Your task to perform on an android device: turn off location history Image 0: 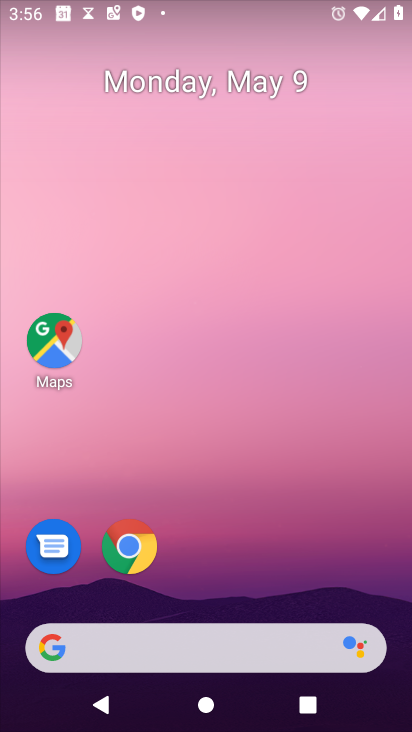
Step 0: drag from (309, 542) to (265, 93)
Your task to perform on an android device: turn off location history Image 1: 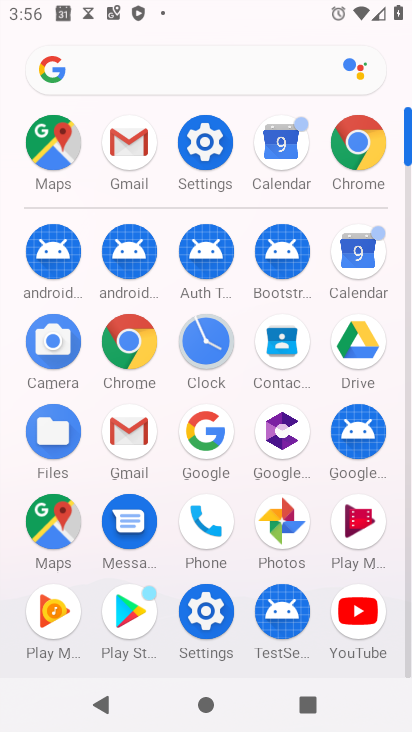
Step 1: click (192, 149)
Your task to perform on an android device: turn off location history Image 2: 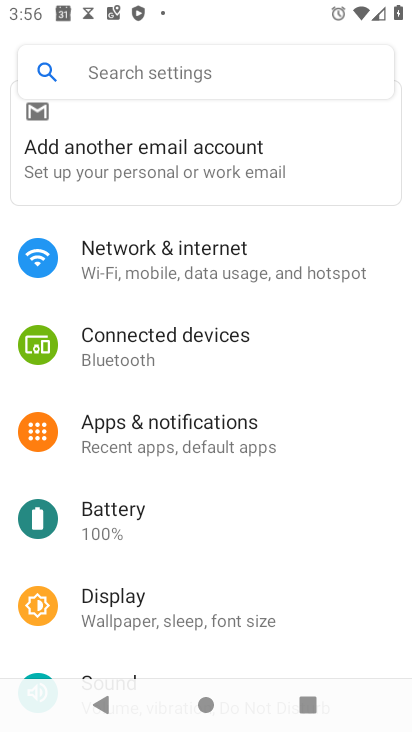
Step 2: drag from (173, 602) to (117, 252)
Your task to perform on an android device: turn off location history Image 3: 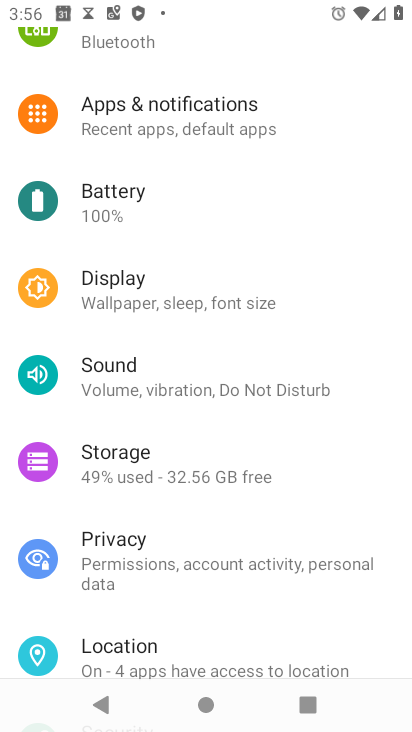
Step 3: drag from (233, 584) to (186, 289)
Your task to perform on an android device: turn off location history Image 4: 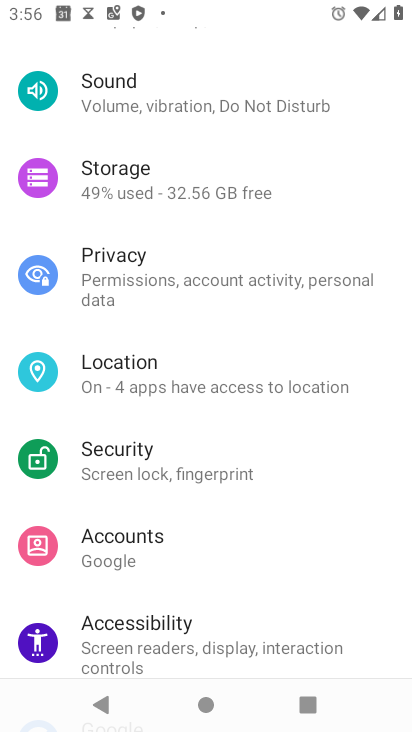
Step 4: click (117, 360)
Your task to perform on an android device: turn off location history Image 5: 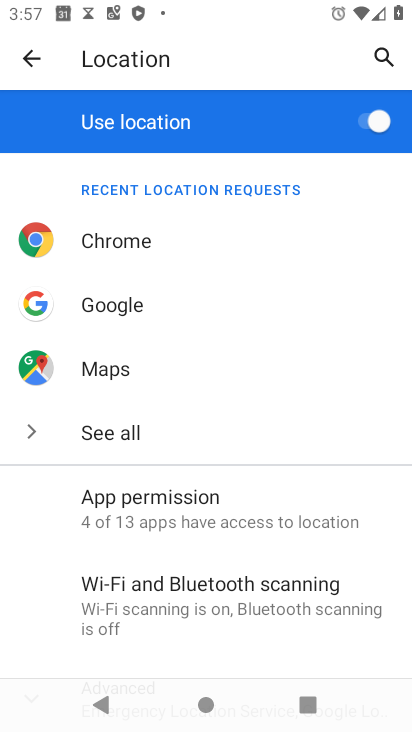
Step 5: click (364, 134)
Your task to perform on an android device: turn off location history Image 6: 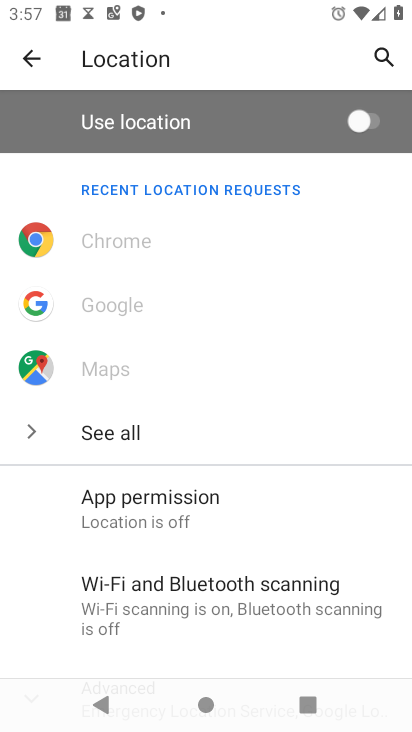
Step 6: task complete